Your task to perform on an android device: What's on my calendar tomorrow? Image 0: 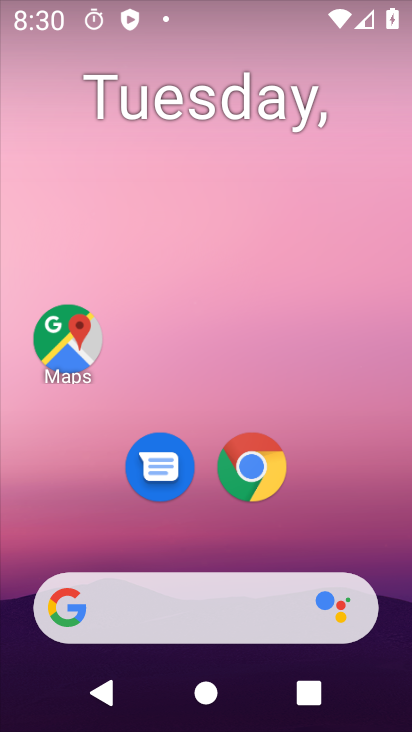
Step 0: drag from (382, 529) to (315, 132)
Your task to perform on an android device: What's on my calendar tomorrow? Image 1: 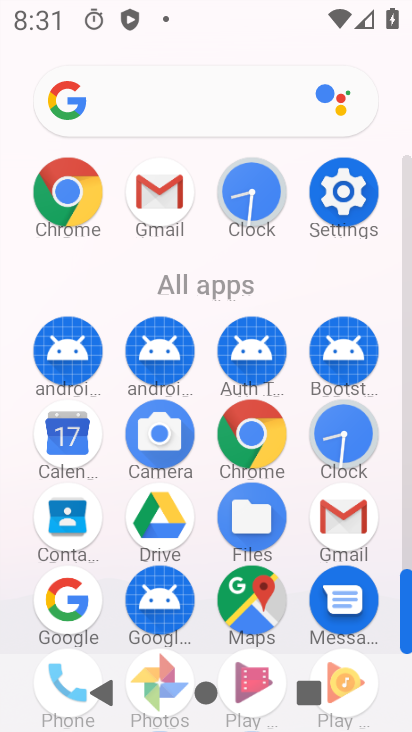
Step 1: click (57, 456)
Your task to perform on an android device: What's on my calendar tomorrow? Image 2: 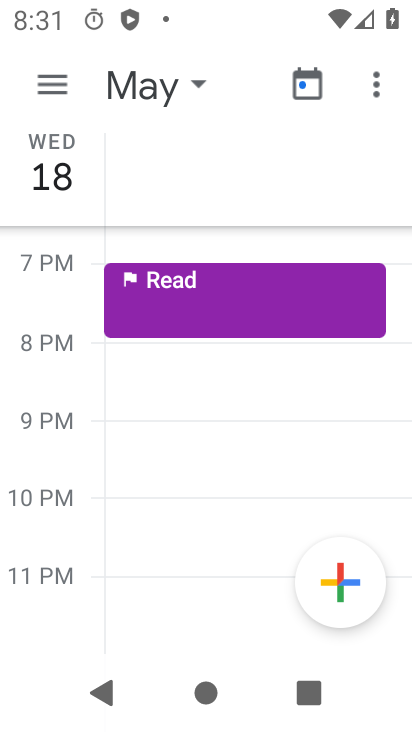
Step 2: click (66, 83)
Your task to perform on an android device: What's on my calendar tomorrow? Image 3: 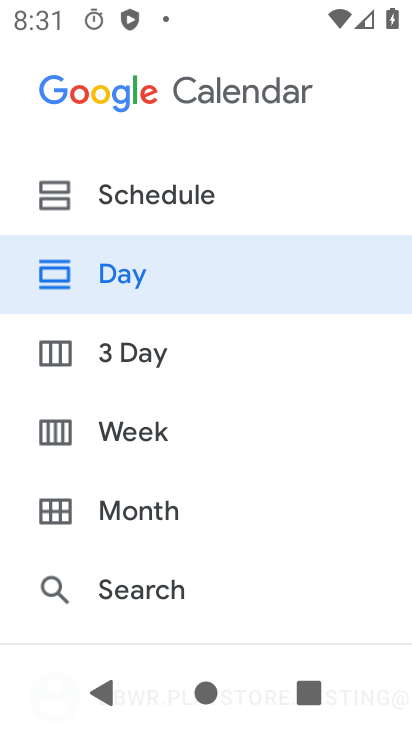
Step 3: click (170, 289)
Your task to perform on an android device: What's on my calendar tomorrow? Image 4: 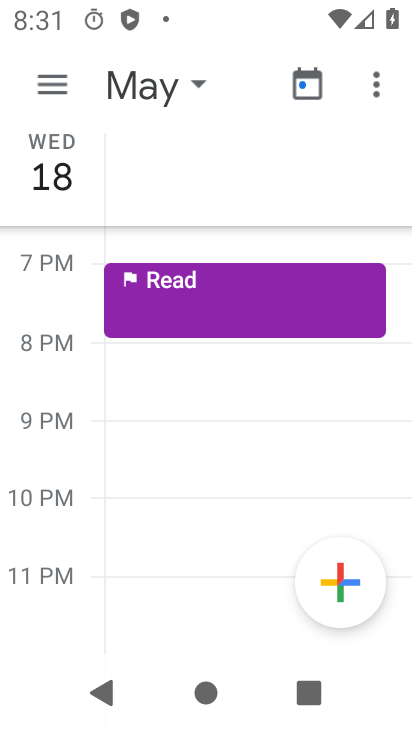
Step 4: click (176, 83)
Your task to perform on an android device: What's on my calendar tomorrow? Image 5: 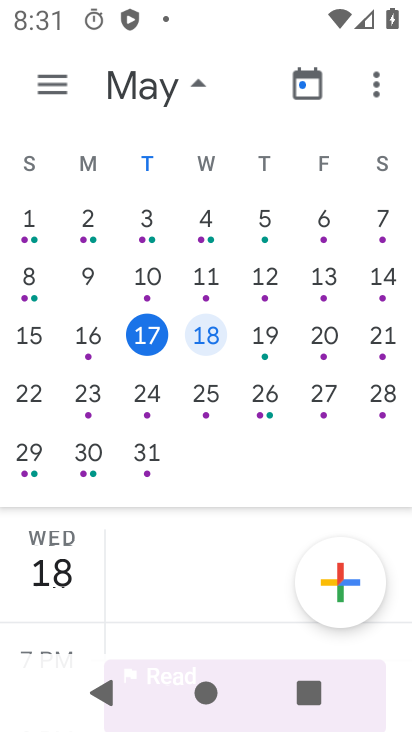
Step 5: click (269, 348)
Your task to perform on an android device: What's on my calendar tomorrow? Image 6: 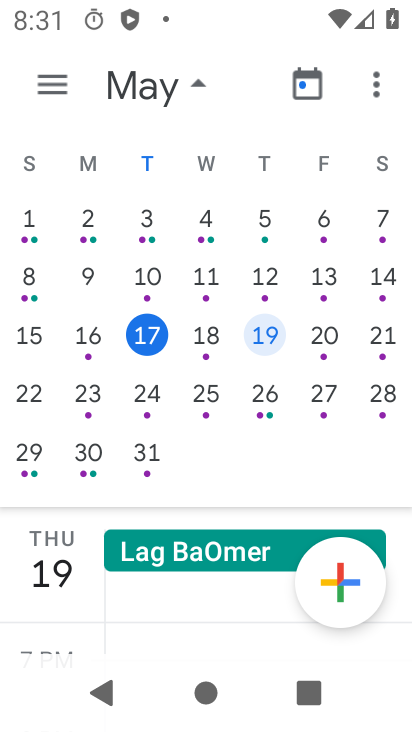
Step 6: click (160, 88)
Your task to perform on an android device: What's on my calendar tomorrow? Image 7: 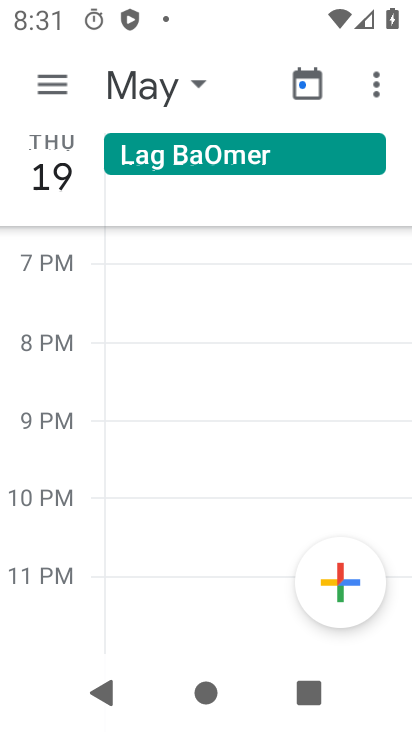
Step 7: task complete